Your task to perform on an android device: What's the weather? Image 0: 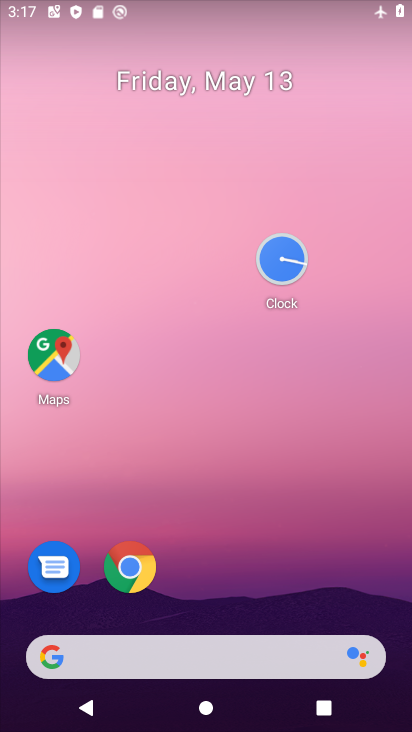
Step 0: click (171, 652)
Your task to perform on an android device: What's the weather? Image 1: 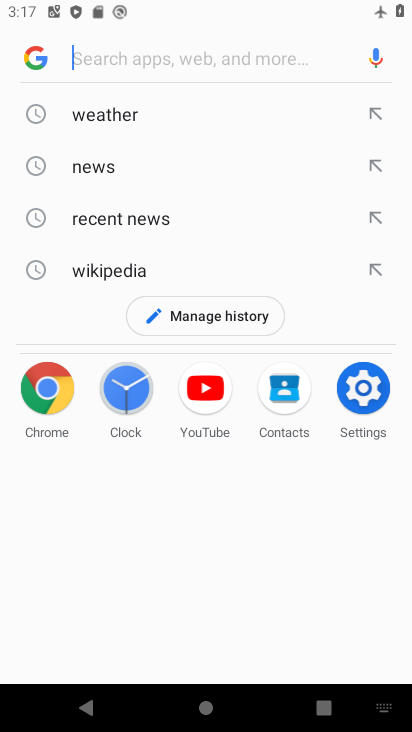
Step 1: click (180, 119)
Your task to perform on an android device: What's the weather? Image 2: 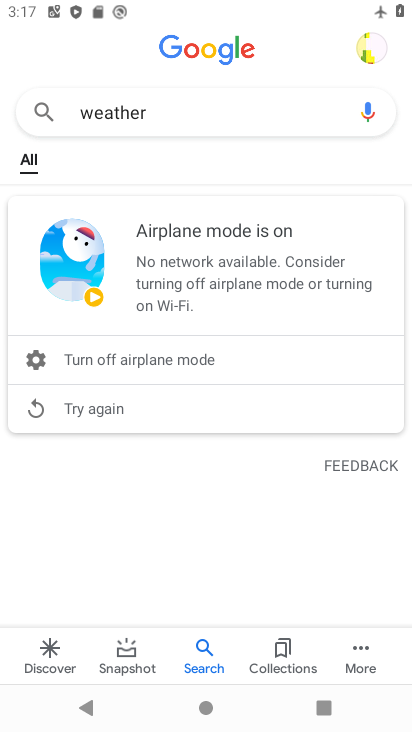
Step 2: task complete